Your task to perform on an android device: toggle airplane mode Image 0: 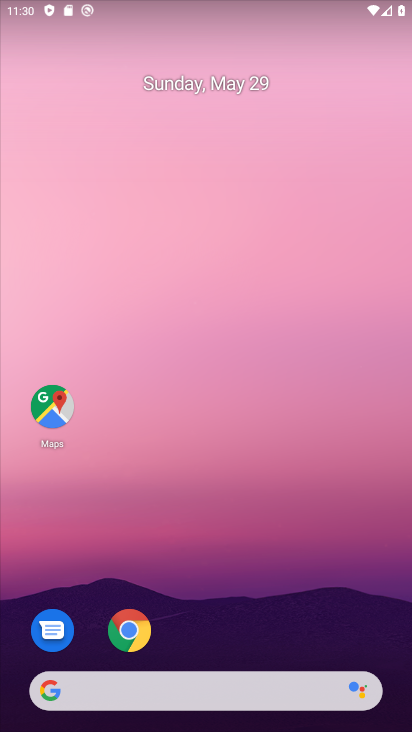
Step 0: drag from (192, 13) to (192, 598)
Your task to perform on an android device: toggle airplane mode Image 1: 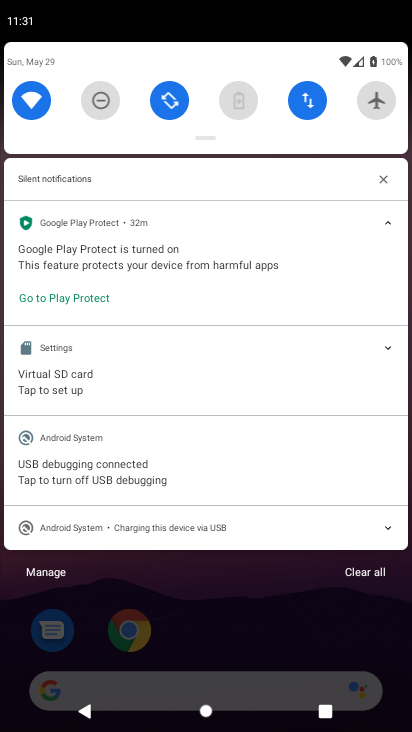
Step 1: click (380, 95)
Your task to perform on an android device: toggle airplane mode Image 2: 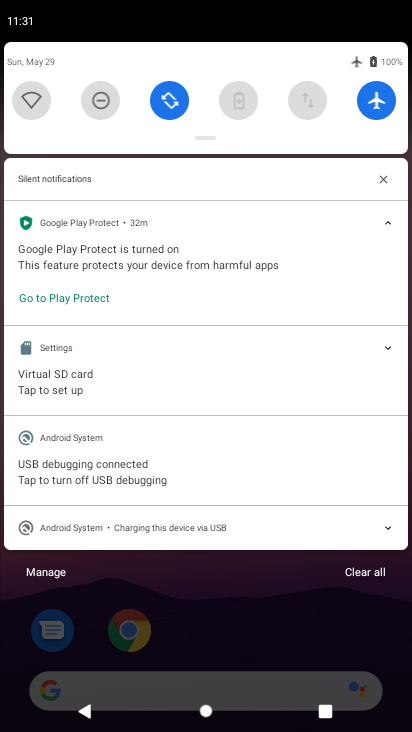
Step 2: task complete